Your task to perform on an android device: Show me productivity apps on the Play Store Image 0: 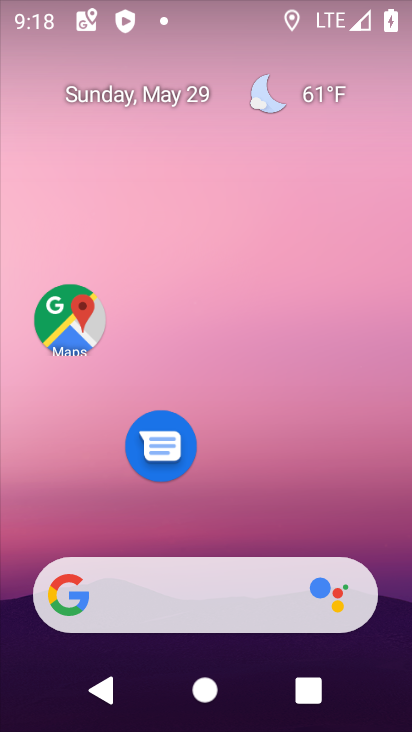
Step 0: drag from (202, 502) to (219, 233)
Your task to perform on an android device: Show me productivity apps on the Play Store Image 1: 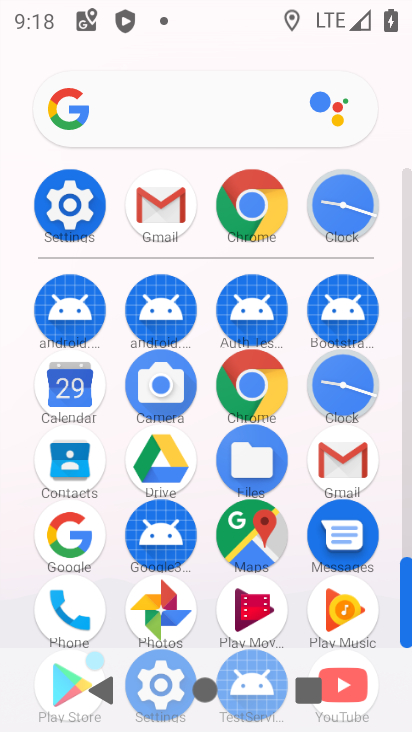
Step 1: drag from (105, 588) to (111, 332)
Your task to perform on an android device: Show me productivity apps on the Play Store Image 2: 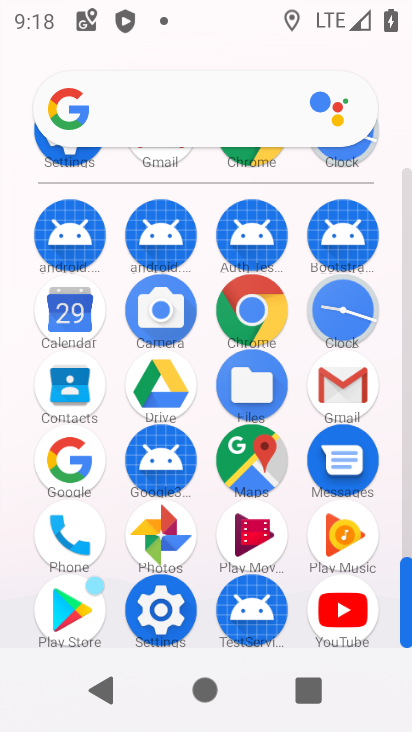
Step 2: click (72, 578)
Your task to perform on an android device: Show me productivity apps on the Play Store Image 3: 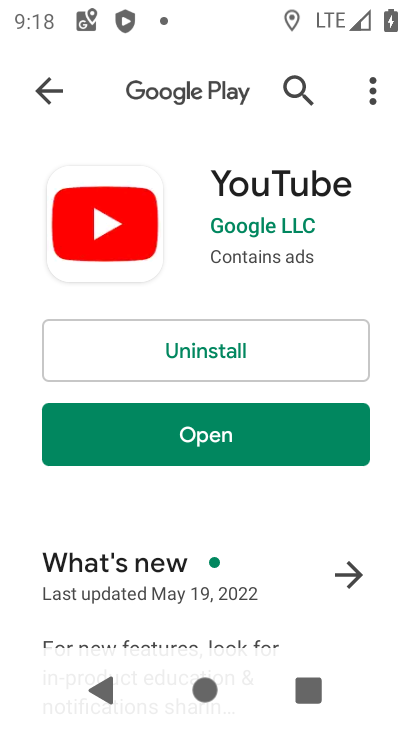
Step 3: click (33, 93)
Your task to perform on an android device: Show me productivity apps on the Play Store Image 4: 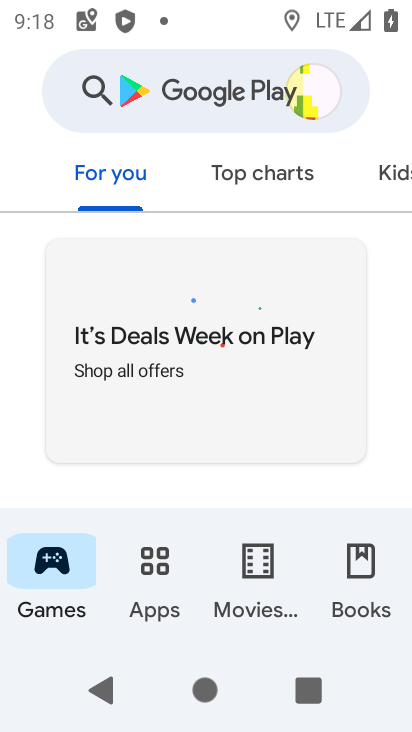
Step 4: click (143, 590)
Your task to perform on an android device: Show me productivity apps on the Play Store Image 5: 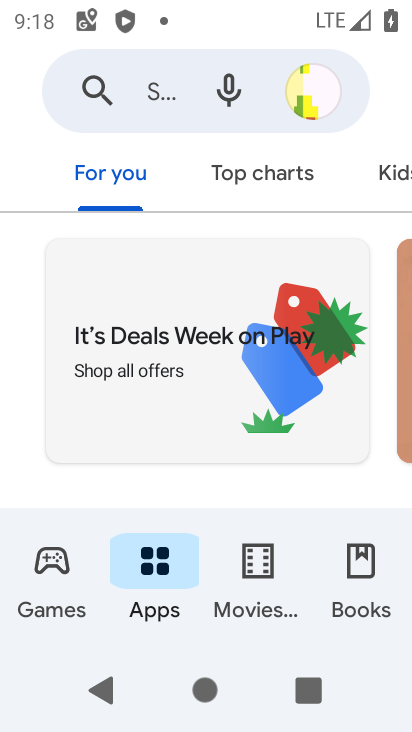
Step 5: drag from (352, 179) to (104, 179)
Your task to perform on an android device: Show me productivity apps on the Play Store Image 6: 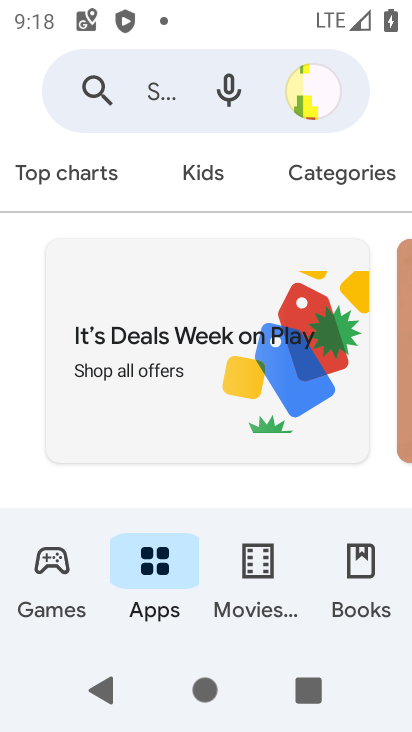
Step 6: click (314, 169)
Your task to perform on an android device: Show me productivity apps on the Play Store Image 7: 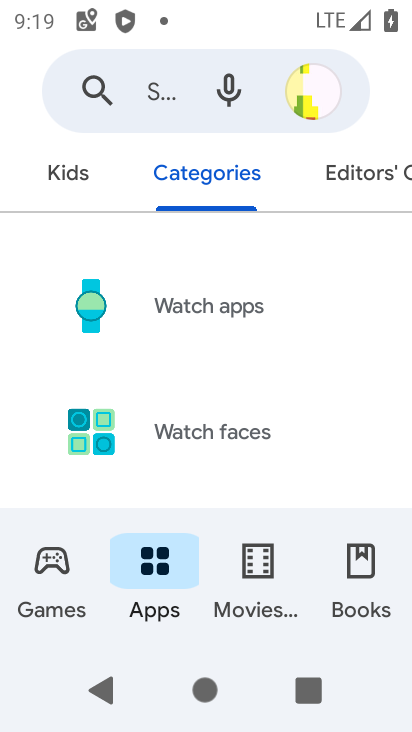
Step 7: drag from (224, 461) to (245, 210)
Your task to perform on an android device: Show me productivity apps on the Play Store Image 8: 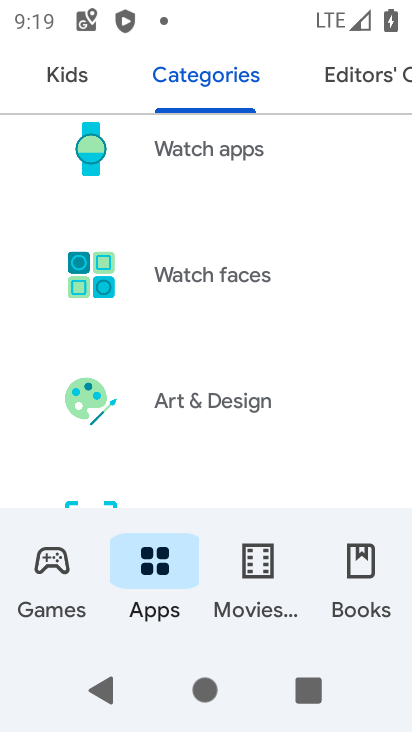
Step 8: drag from (267, 402) to (268, 196)
Your task to perform on an android device: Show me productivity apps on the Play Store Image 9: 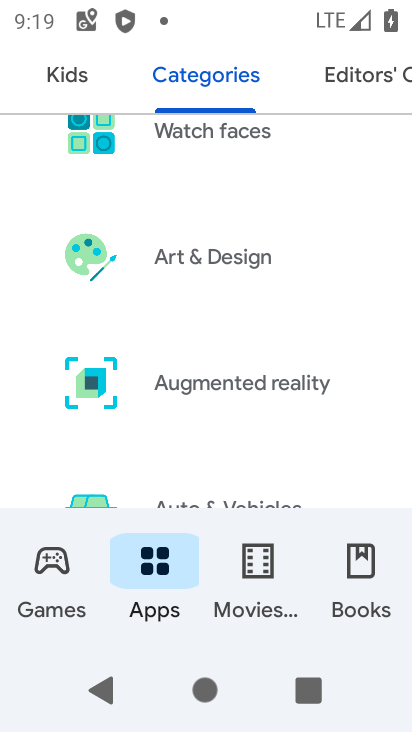
Step 9: drag from (255, 400) to (266, 150)
Your task to perform on an android device: Show me productivity apps on the Play Store Image 10: 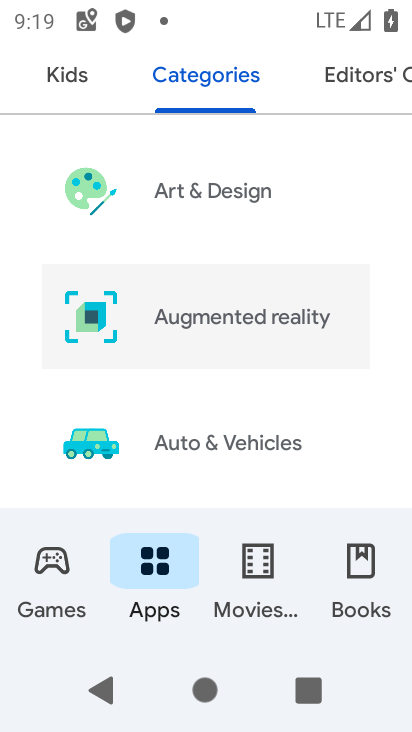
Step 10: drag from (277, 281) to (282, 109)
Your task to perform on an android device: Show me productivity apps on the Play Store Image 11: 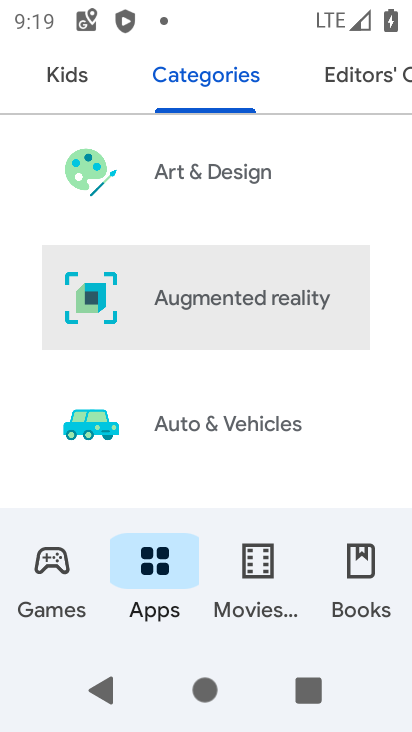
Step 11: drag from (290, 392) to (292, 154)
Your task to perform on an android device: Show me productivity apps on the Play Store Image 12: 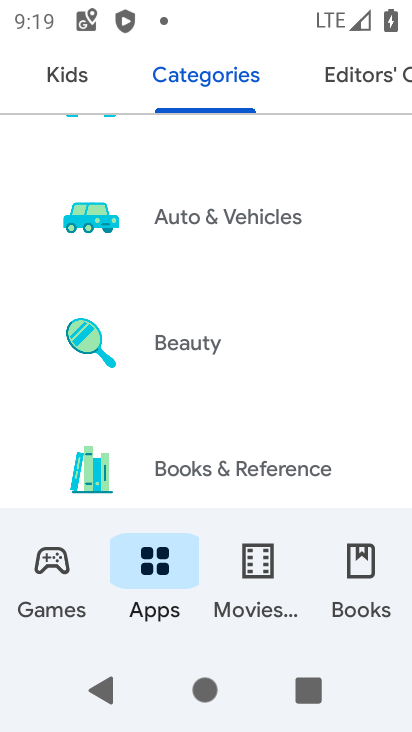
Step 12: drag from (291, 434) to (299, 197)
Your task to perform on an android device: Show me productivity apps on the Play Store Image 13: 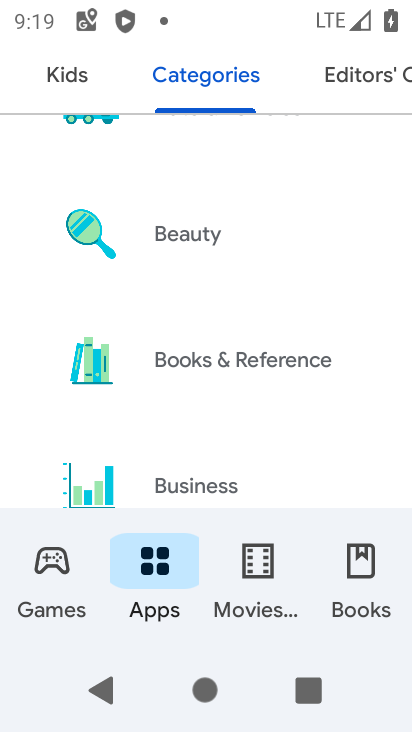
Step 13: drag from (283, 403) to (288, 179)
Your task to perform on an android device: Show me productivity apps on the Play Store Image 14: 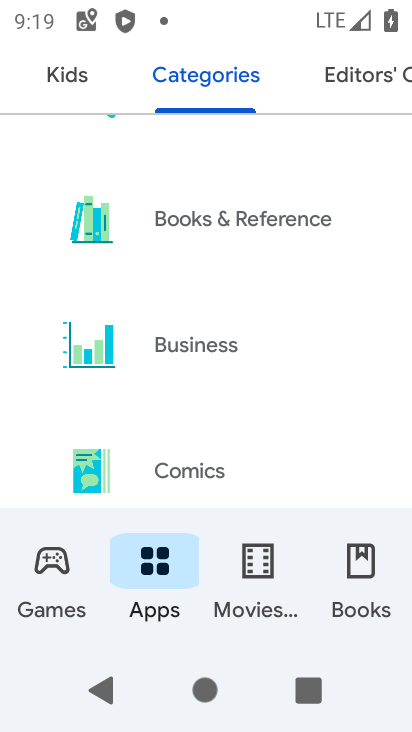
Step 14: drag from (256, 430) to (261, 166)
Your task to perform on an android device: Show me productivity apps on the Play Store Image 15: 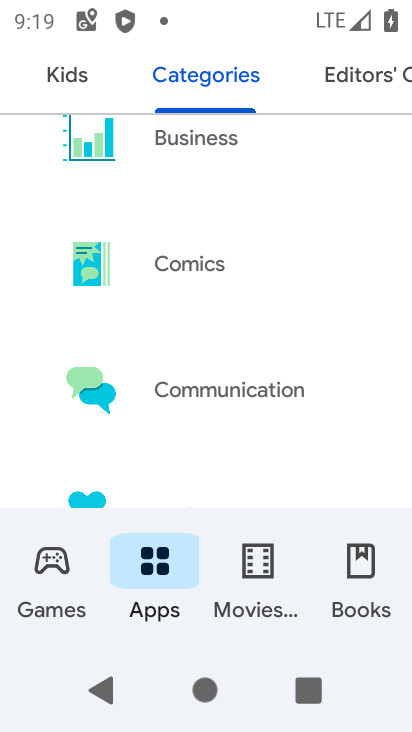
Step 15: drag from (257, 454) to (262, 173)
Your task to perform on an android device: Show me productivity apps on the Play Store Image 16: 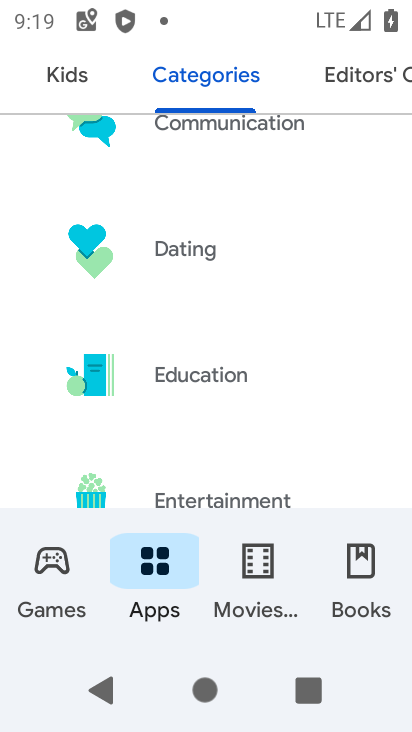
Step 16: drag from (260, 414) to (270, 164)
Your task to perform on an android device: Show me productivity apps on the Play Store Image 17: 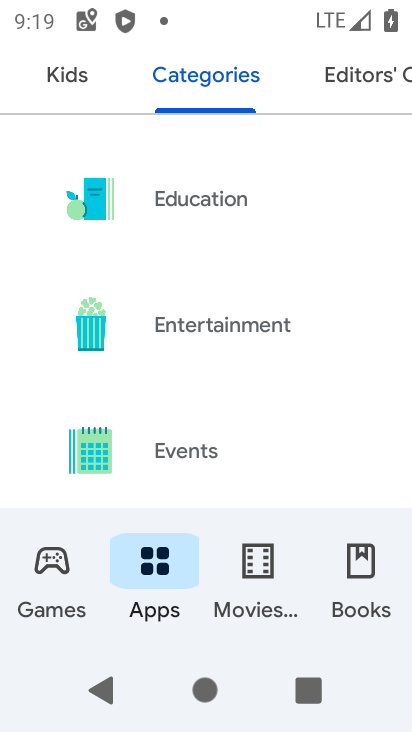
Step 17: drag from (305, 383) to (305, 179)
Your task to perform on an android device: Show me productivity apps on the Play Store Image 18: 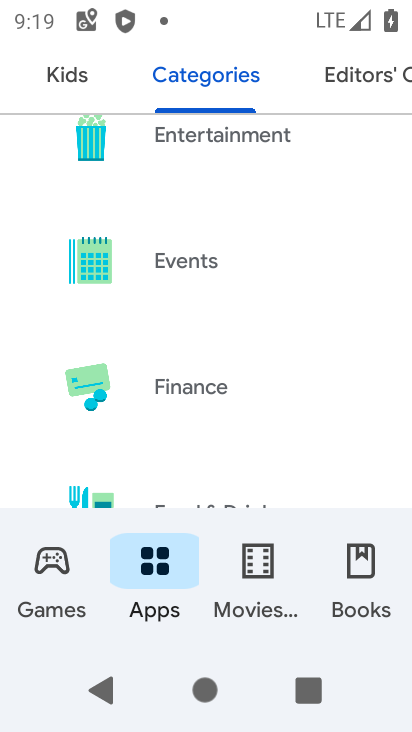
Step 18: drag from (314, 424) to (317, 192)
Your task to perform on an android device: Show me productivity apps on the Play Store Image 19: 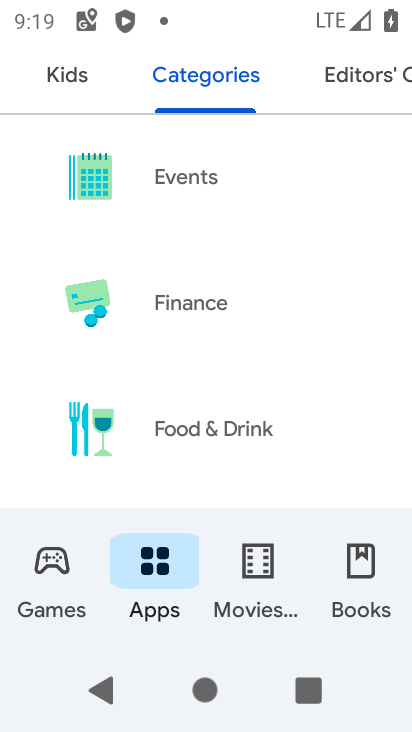
Step 19: drag from (318, 381) to (332, 247)
Your task to perform on an android device: Show me productivity apps on the Play Store Image 20: 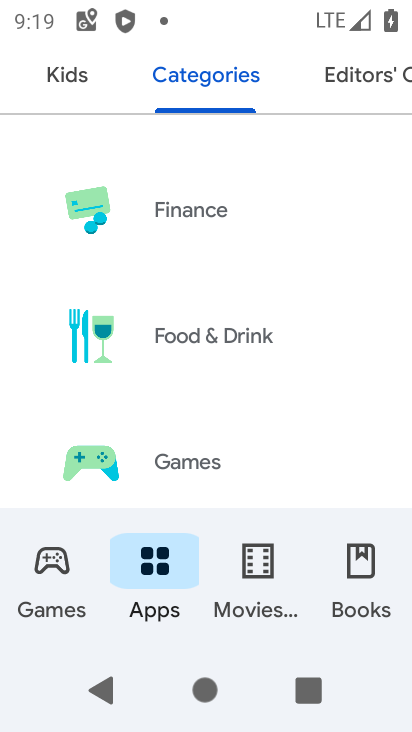
Step 20: drag from (303, 416) to (321, 183)
Your task to perform on an android device: Show me productivity apps on the Play Store Image 21: 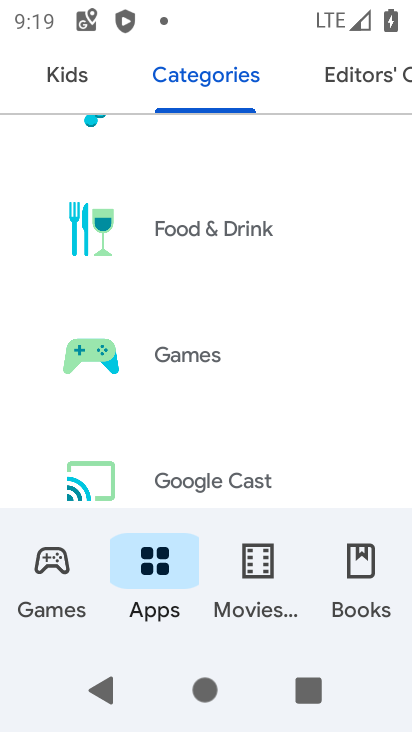
Step 21: drag from (316, 438) to (321, 220)
Your task to perform on an android device: Show me productivity apps on the Play Store Image 22: 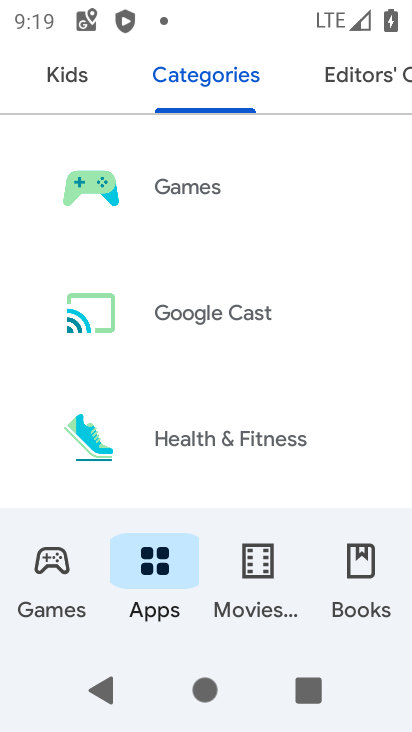
Step 22: drag from (298, 514) to (298, 253)
Your task to perform on an android device: Show me productivity apps on the Play Store Image 23: 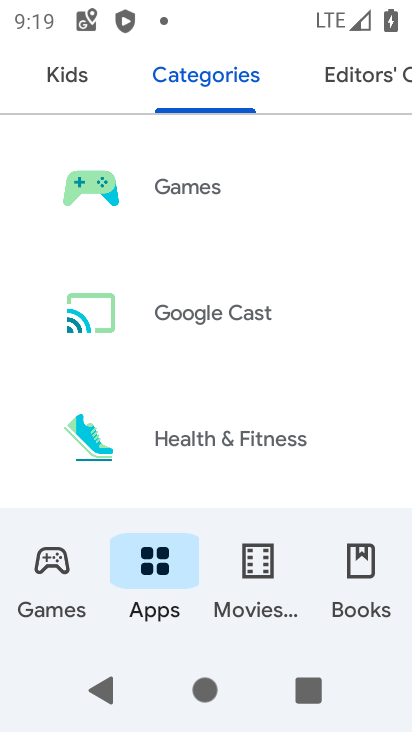
Step 23: drag from (298, 412) to (283, 199)
Your task to perform on an android device: Show me productivity apps on the Play Store Image 24: 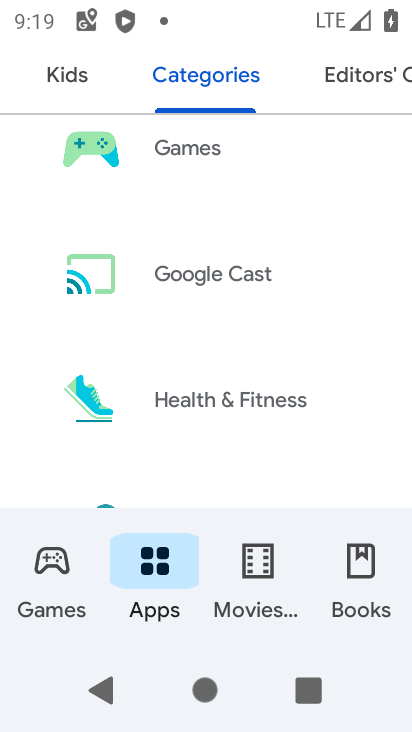
Step 24: drag from (299, 452) to (295, 174)
Your task to perform on an android device: Show me productivity apps on the Play Store Image 25: 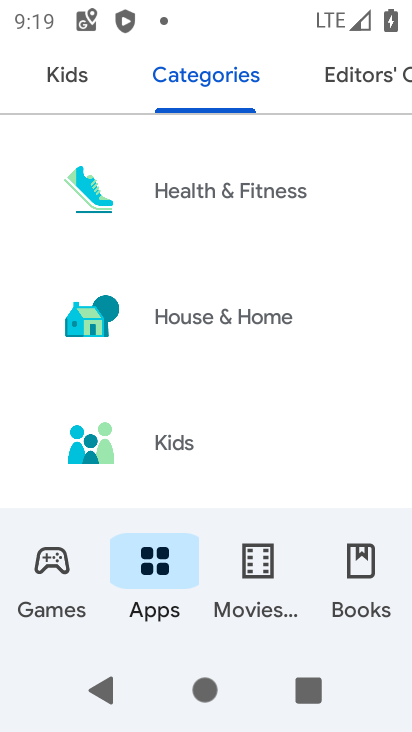
Step 25: drag from (309, 421) to (311, 231)
Your task to perform on an android device: Show me productivity apps on the Play Store Image 26: 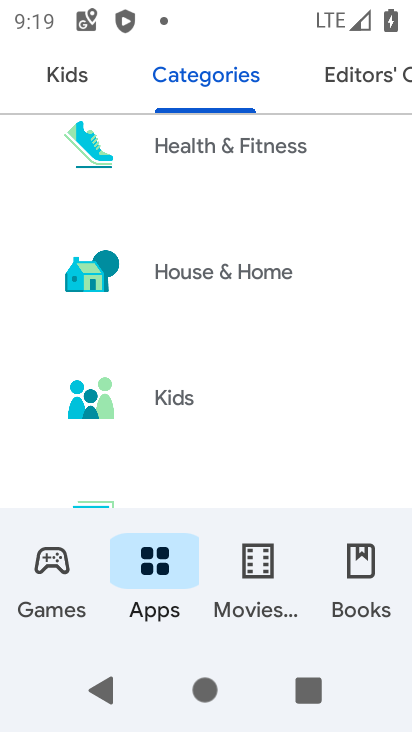
Step 26: drag from (293, 361) to (299, 153)
Your task to perform on an android device: Show me productivity apps on the Play Store Image 27: 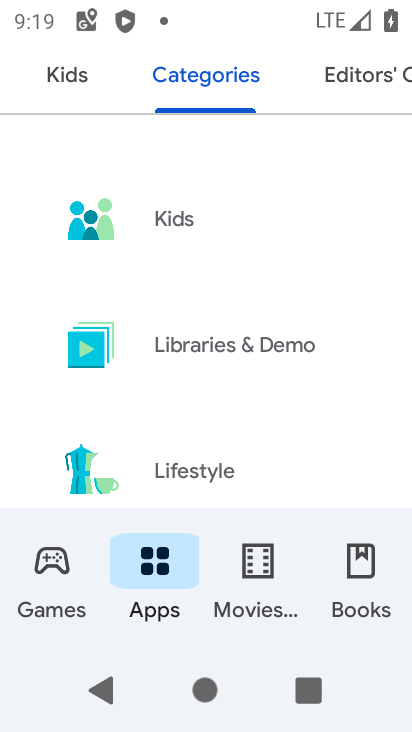
Step 27: drag from (267, 435) to (269, 213)
Your task to perform on an android device: Show me productivity apps on the Play Store Image 28: 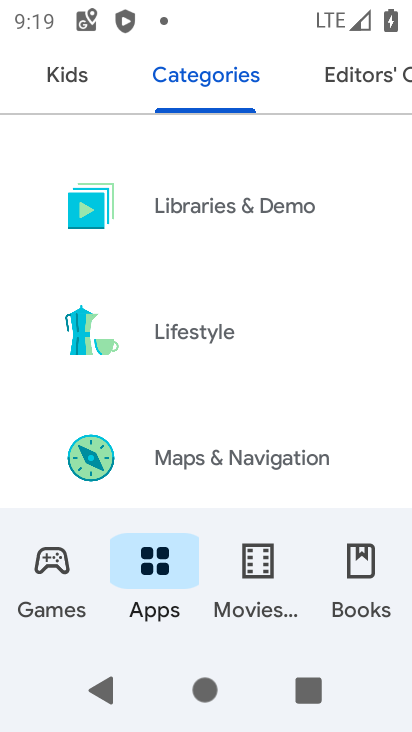
Step 28: drag from (267, 421) to (269, 223)
Your task to perform on an android device: Show me productivity apps on the Play Store Image 29: 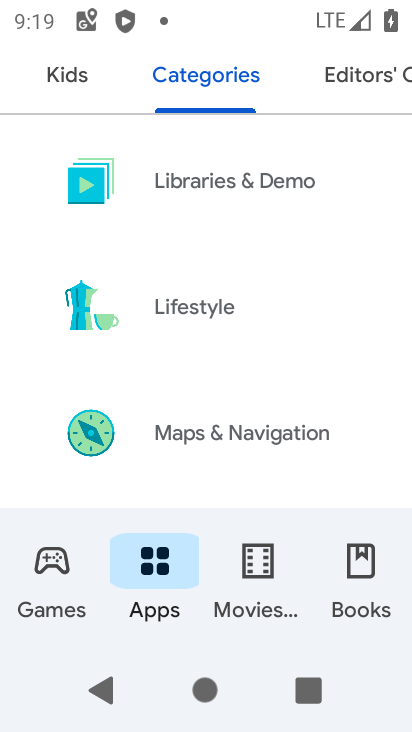
Step 29: drag from (268, 366) to (268, 226)
Your task to perform on an android device: Show me productivity apps on the Play Store Image 30: 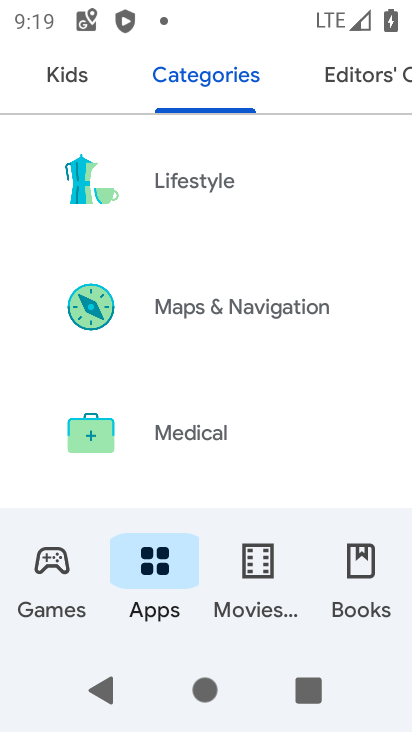
Step 30: drag from (263, 430) to (265, 211)
Your task to perform on an android device: Show me productivity apps on the Play Store Image 31: 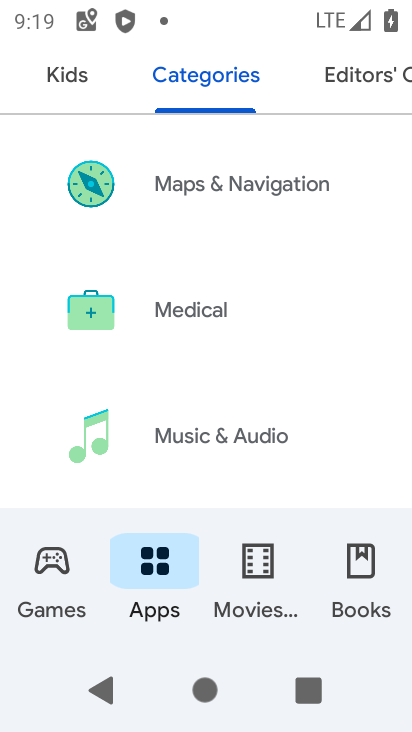
Step 31: drag from (265, 399) to (271, 225)
Your task to perform on an android device: Show me productivity apps on the Play Store Image 32: 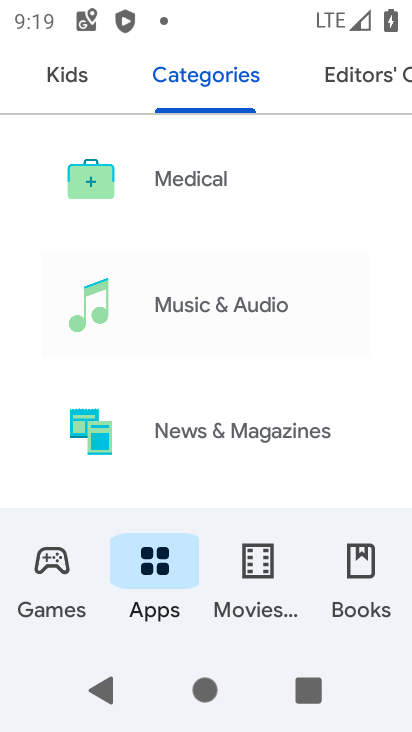
Step 32: drag from (278, 397) to (278, 204)
Your task to perform on an android device: Show me productivity apps on the Play Store Image 33: 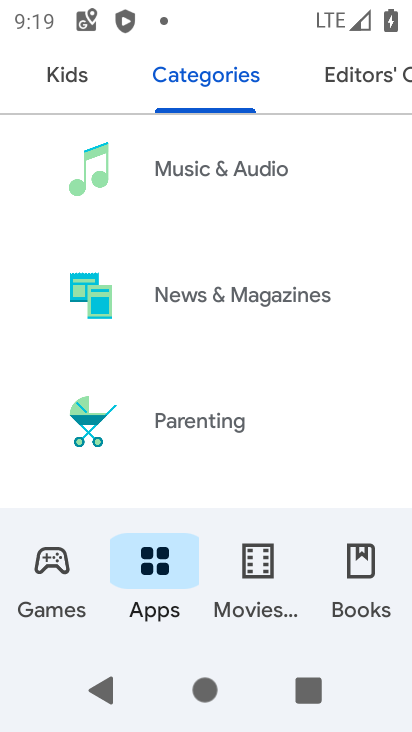
Step 33: drag from (278, 436) to (279, 208)
Your task to perform on an android device: Show me productivity apps on the Play Store Image 34: 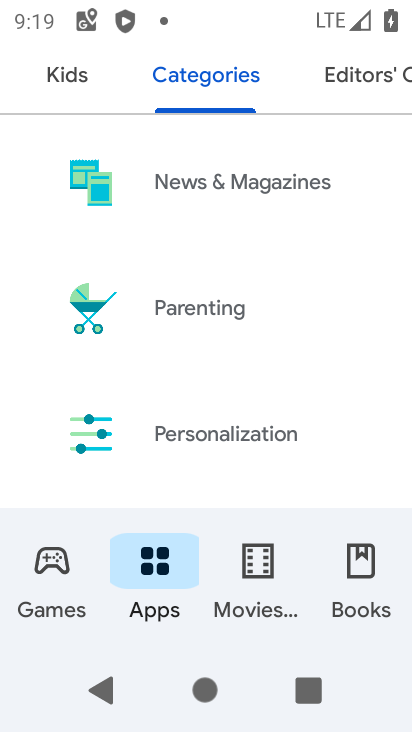
Step 34: drag from (279, 371) to (279, 193)
Your task to perform on an android device: Show me productivity apps on the Play Store Image 35: 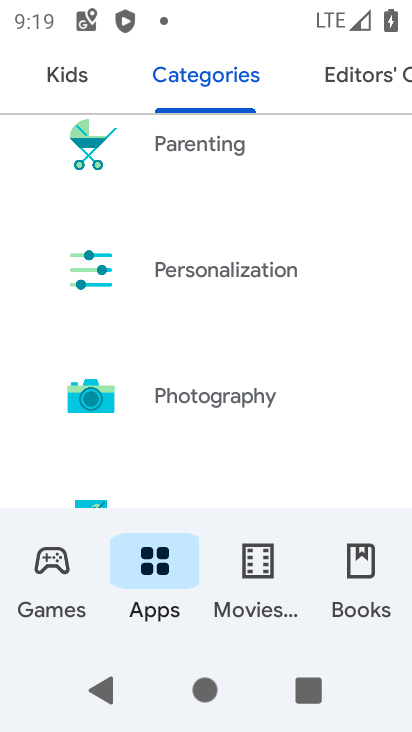
Step 35: drag from (290, 364) to (291, 228)
Your task to perform on an android device: Show me productivity apps on the Play Store Image 36: 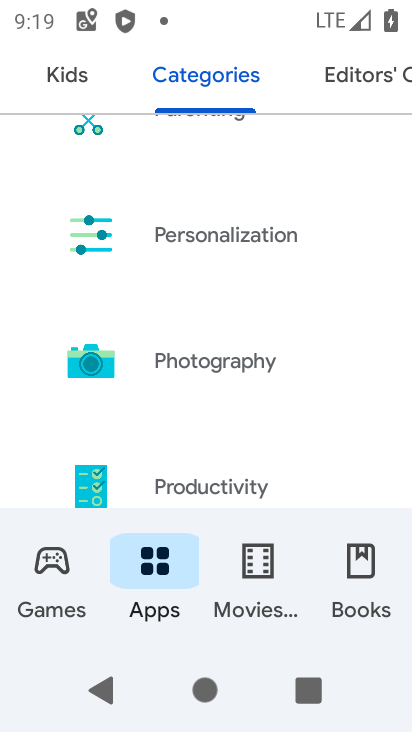
Step 36: drag from (281, 409) to (291, 252)
Your task to perform on an android device: Show me productivity apps on the Play Store Image 37: 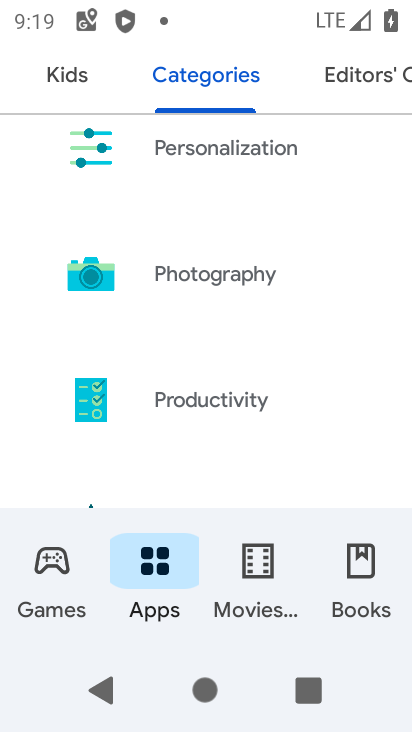
Step 37: click (244, 424)
Your task to perform on an android device: Show me productivity apps on the Play Store Image 38: 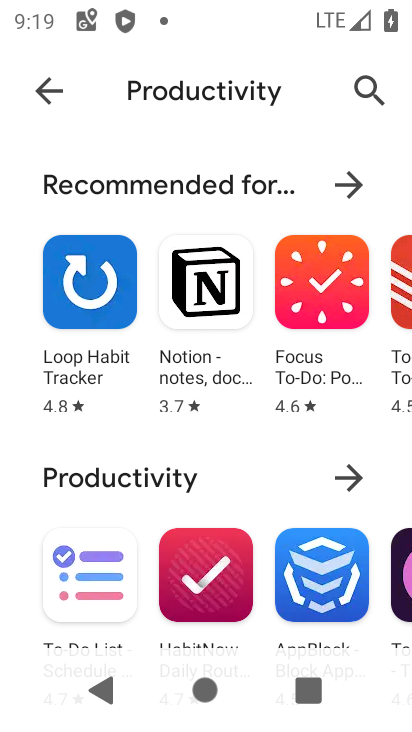
Step 38: task complete